Your task to perform on an android device: Go to privacy settings Image 0: 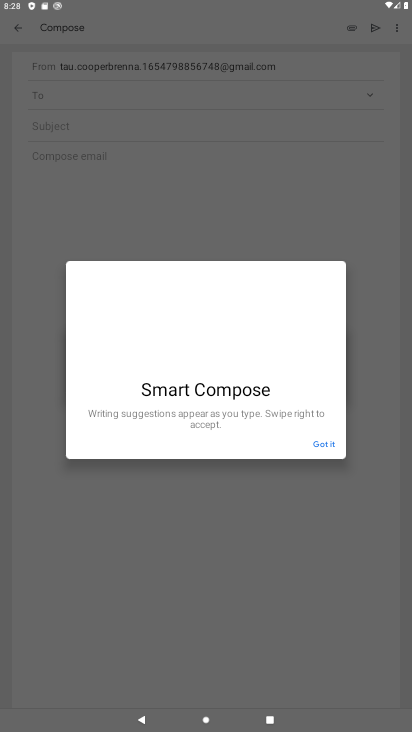
Step 0: press home button
Your task to perform on an android device: Go to privacy settings Image 1: 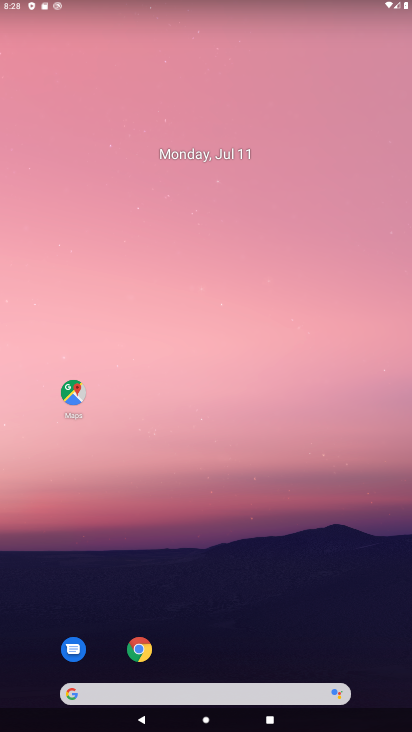
Step 1: drag from (198, 600) to (304, 102)
Your task to perform on an android device: Go to privacy settings Image 2: 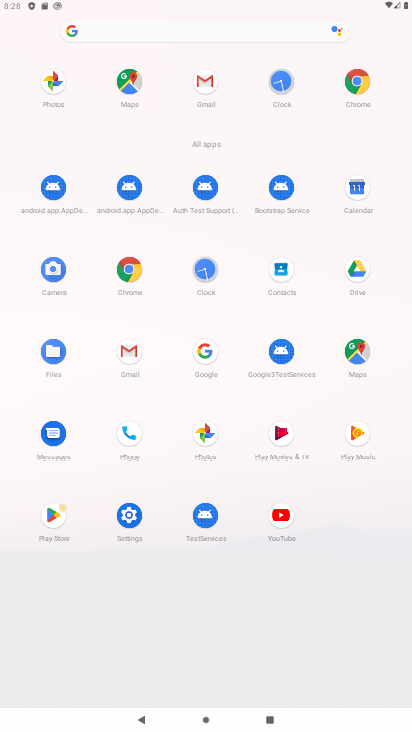
Step 2: click (136, 281)
Your task to perform on an android device: Go to privacy settings Image 3: 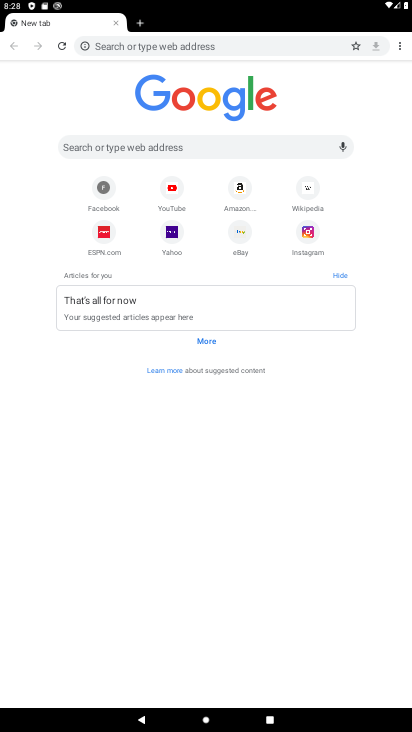
Step 3: drag from (396, 44) to (332, 228)
Your task to perform on an android device: Go to privacy settings Image 4: 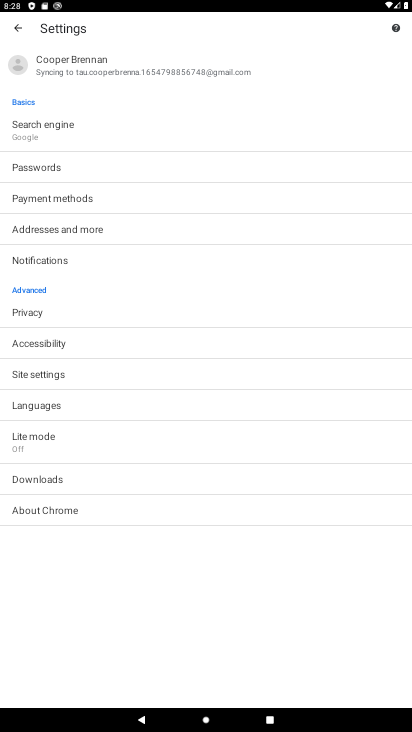
Step 4: click (154, 309)
Your task to perform on an android device: Go to privacy settings Image 5: 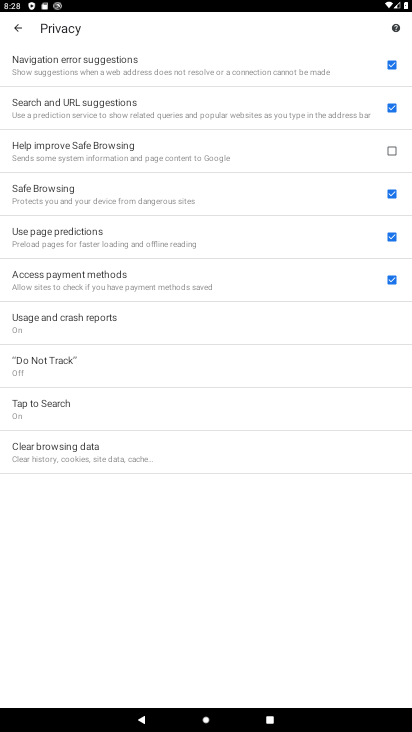
Step 5: task complete